Your task to perform on an android device: Go to Wikipedia Image 0: 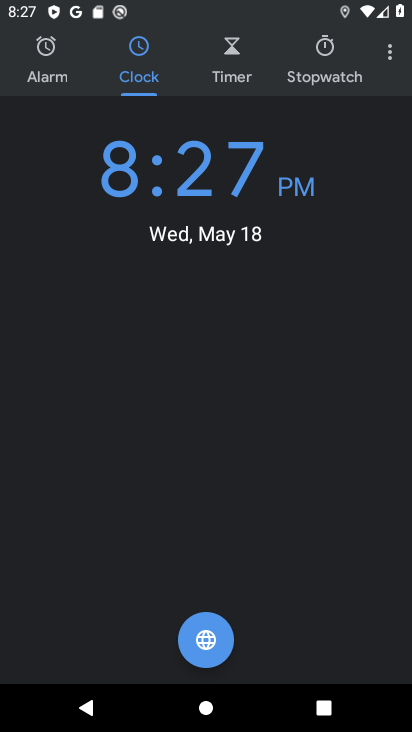
Step 0: press back button
Your task to perform on an android device: Go to Wikipedia Image 1: 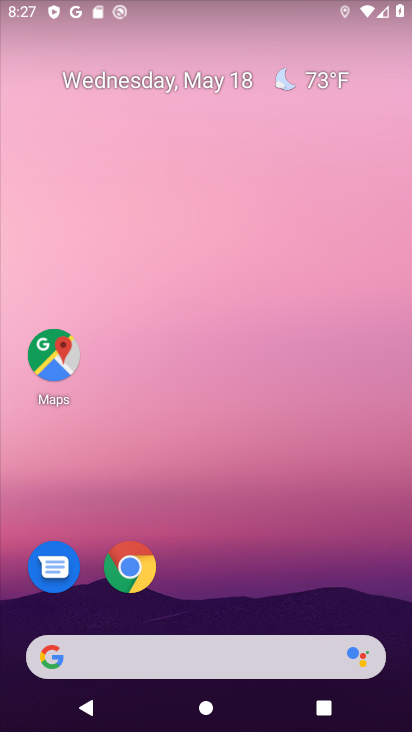
Step 1: drag from (246, 289) to (237, 8)
Your task to perform on an android device: Go to Wikipedia Image 2: 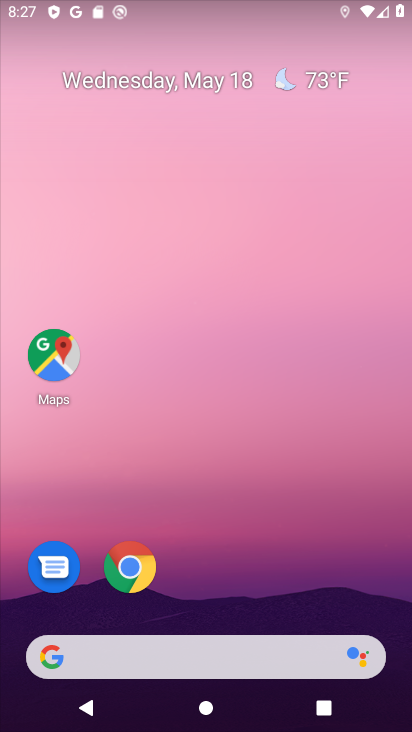
Step 2: drag from (235, 573) to (180, 3)
Your task to perform on an android device: Go to Wikipedia Image 3: 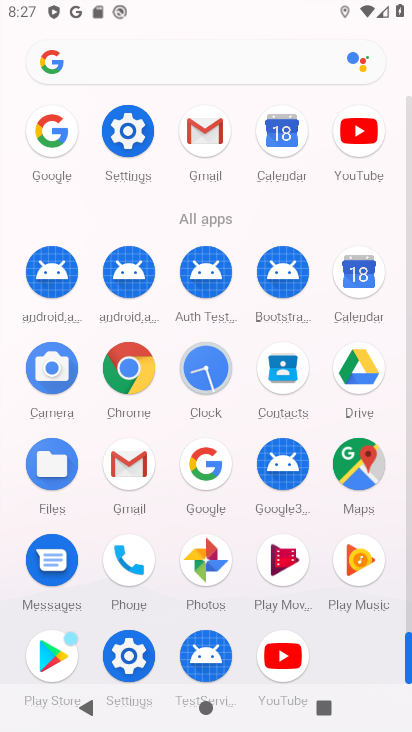
Step 3: click (124, 358)
Your task to perform on an android device: Go to Wikipedia Image 4: 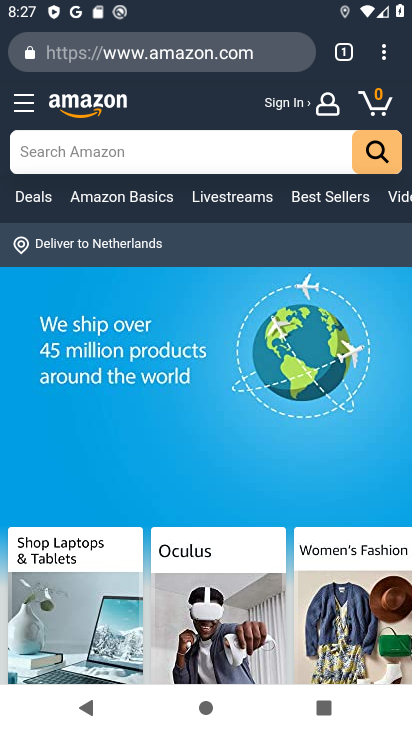
Step 4: click (187, 37)
Your task to perform on an android device: Go to Wikipedia Image 5: 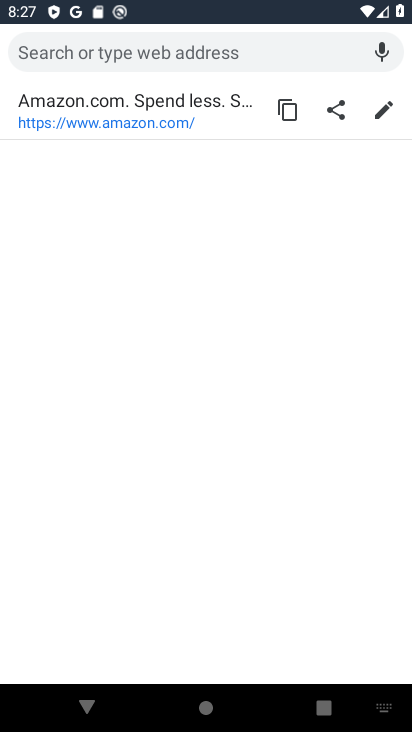
Step 5: type "Wikipedia"
Your task to perform on an android device: Go to Wikipedia Image 6: 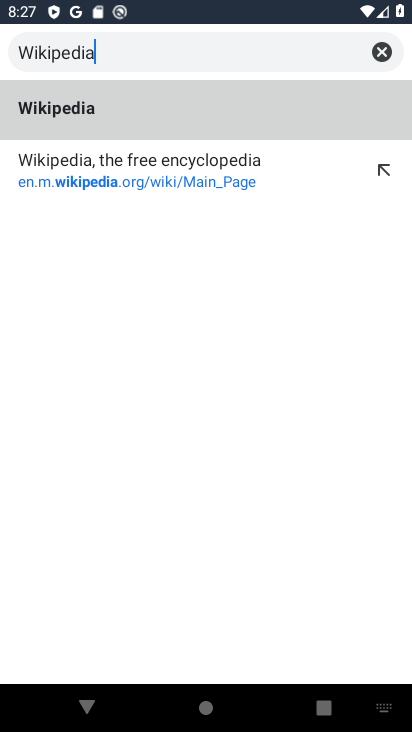
Step 6: type ""
Your task to perform on an android device: Go to Wikipedia Image 7: 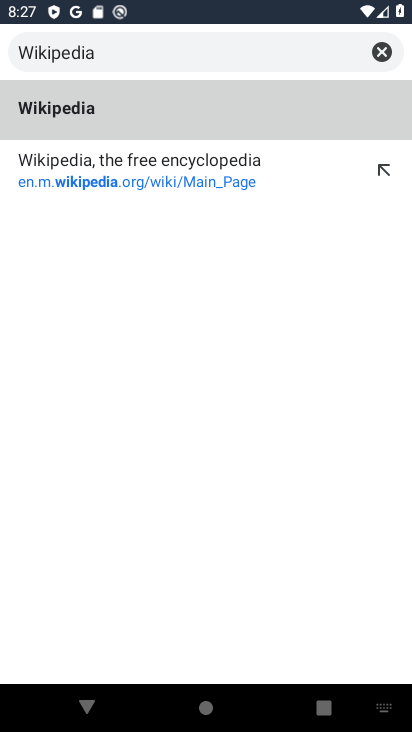
Step 7: click (161, 108)
Your task to perform on an android device: Go to Wikipedia Image 8: 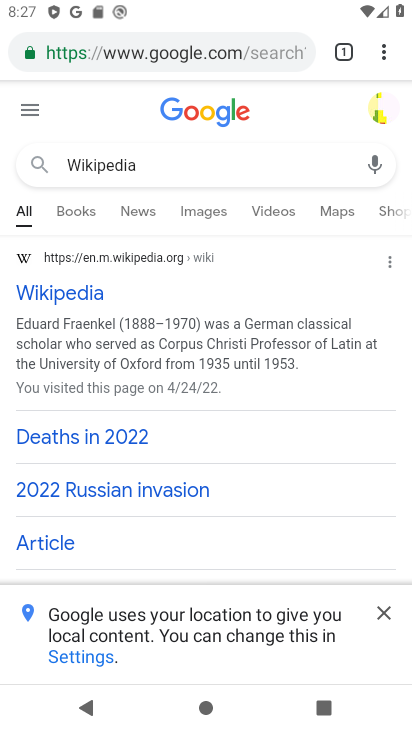
Step 8: click (86, 291)
Your task to perform on an android device: Go to Wikipedia Image 9: 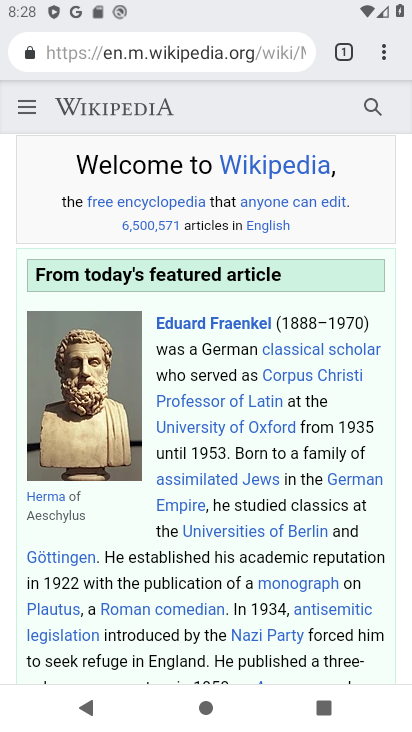
Step 9: task complete